Your task to perform on an android device: Search for seafood restaurants on Google Maps Image 0: 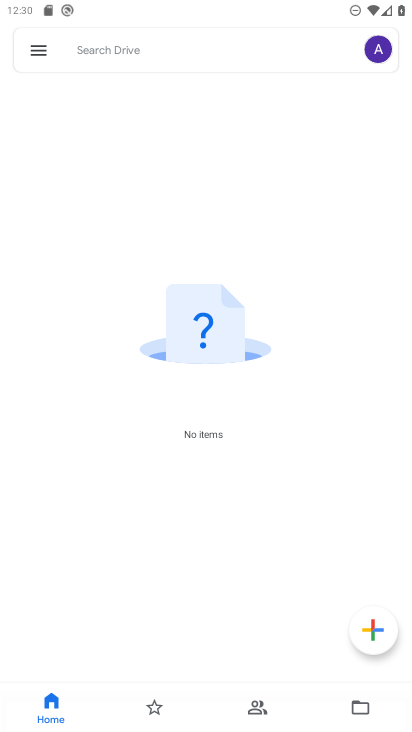
Step 0: press home button
Your task to perform on an android device: Search for seafood restaurants on Google Maps Image 1: 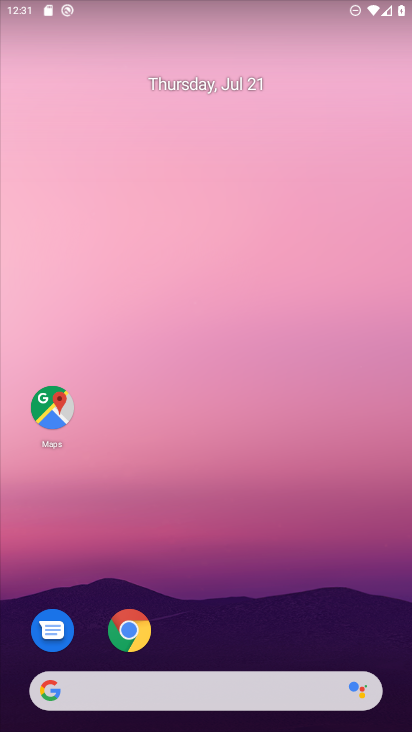
Step 1: click (57, 410)
Your task to perform on an android device: Search for seafood restaurants on Google Maps Image 2: 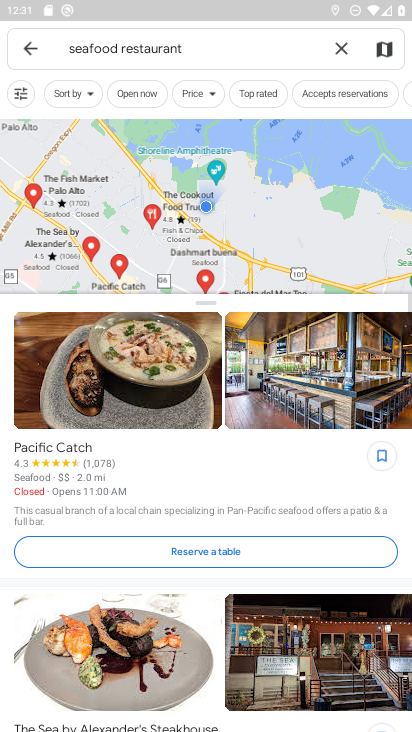
Step 2: click (350, 45)
Your task to perform on an android device: Search for seafood restaurants on Google Maps Image 3: 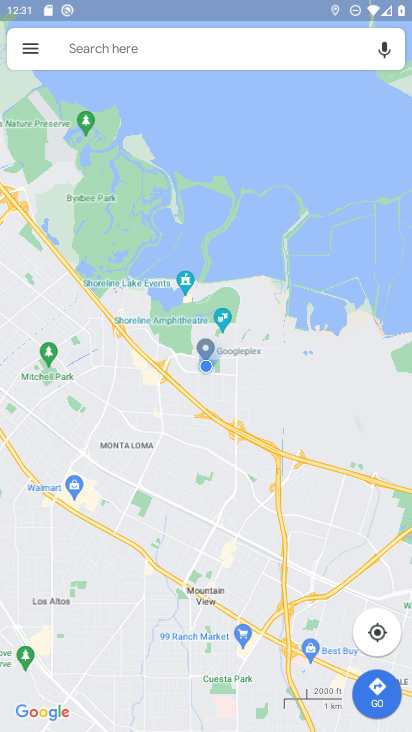
Step 3: click (232, 48)
Your task to perform on an android device: Search for seafood restaurants on Google Maps Image 4: 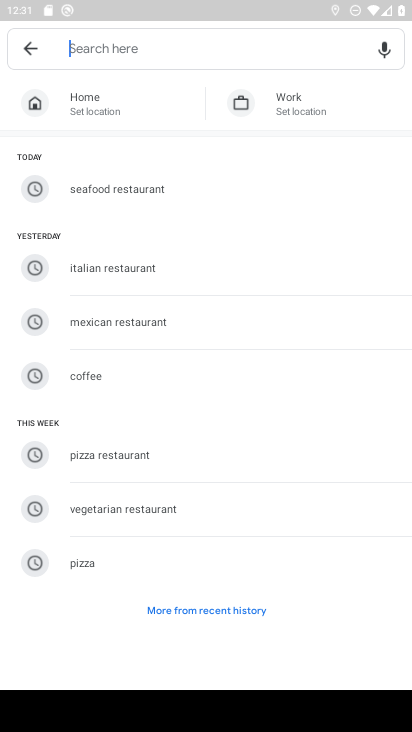
Step 4: type "seafood restaurants"
Your task to perform on an android device: Search for seafood restaurants on Google Maps Image 5: 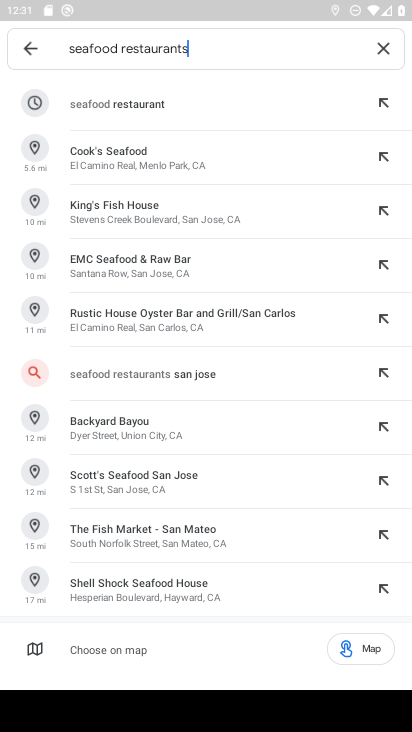
Step 5: click (124, 97)
Your task to perform on an android device: Search for seafood restaurants on Google Maps Image 6: 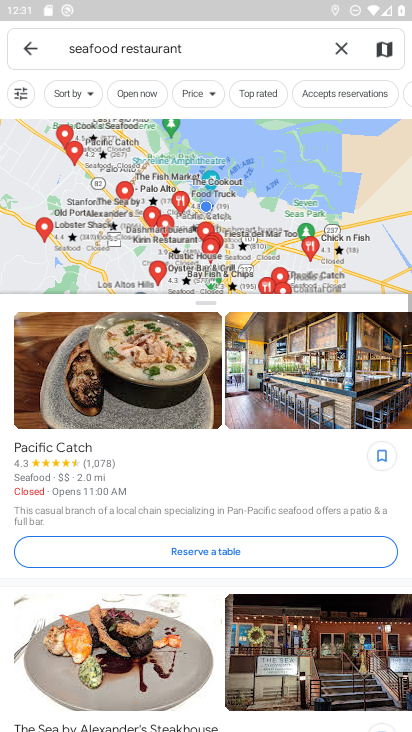
Step 6: task complete